Your task to perform on an android device: Go to ESPN.com Image 0: 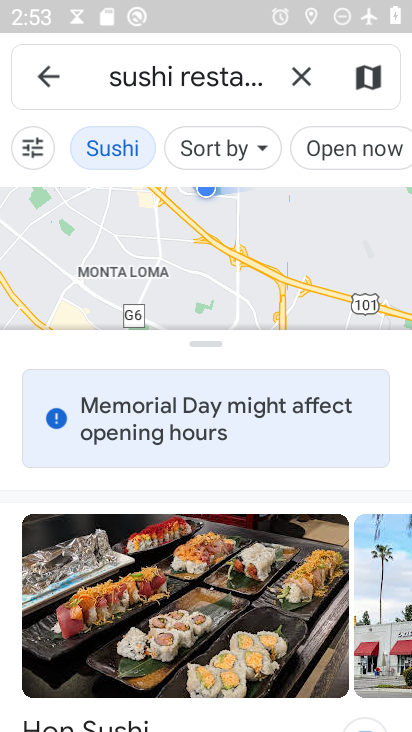
Step 0: press back button
Your task to perform on an android device: Go to ESPN.com Image 1: 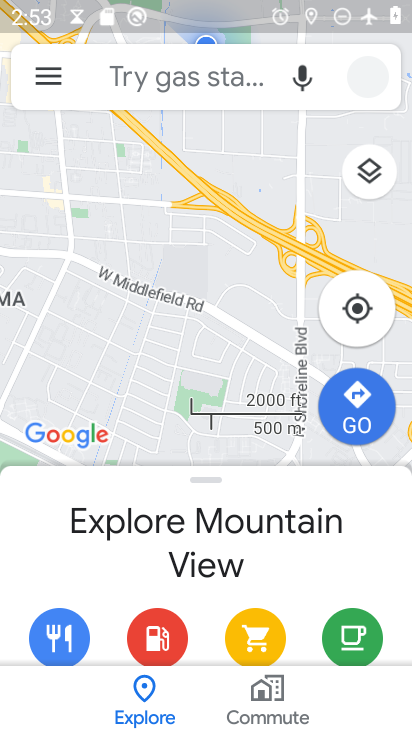
Step 1: click (166, 58)
Your task to perform on an android device: Go to ESPN.com Image 2: 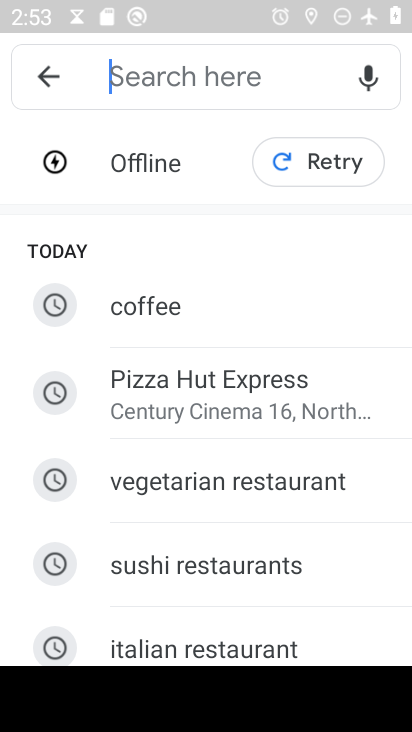
Step 2: press home button
Your task to perform on an android device: Go to ESPN.com Image 3: 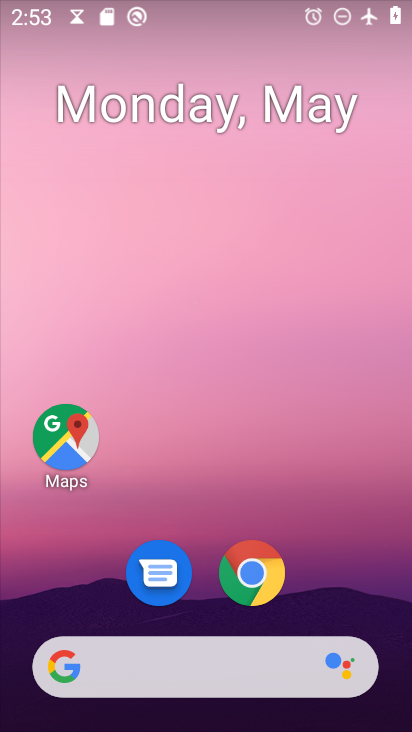
Step 3: drag from (138, 651) to (162, 2)
Your task to perform on an android device: Go to ESPN.com Image 4: 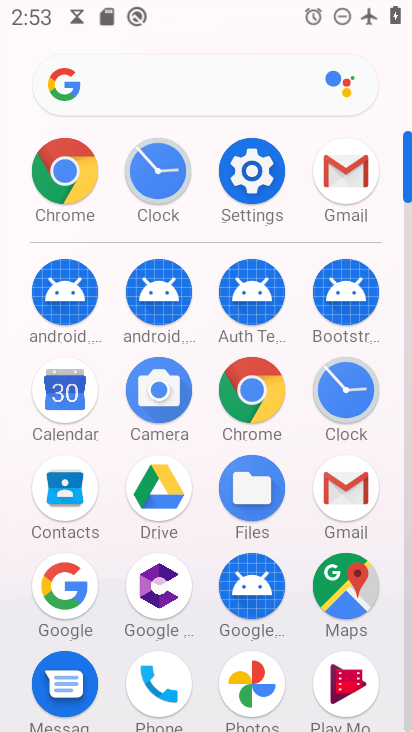
Step 4: click (260, 397)
Your task to perform on an android device: Go to ESPN.com Image 5: 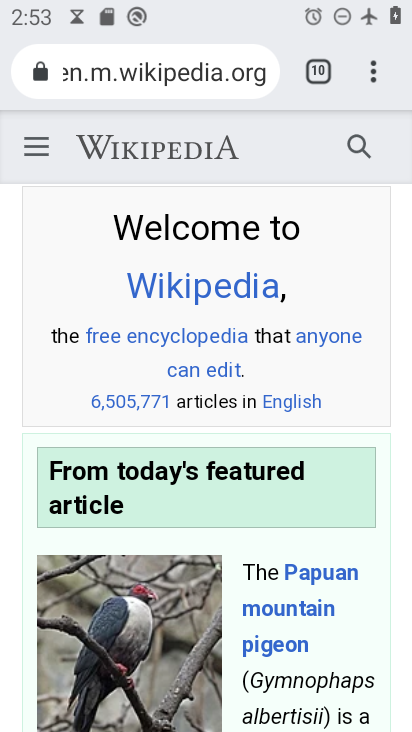
Step 5: type "esp"
Your task to perform on an android device: Go to ESPN.com Image 6: 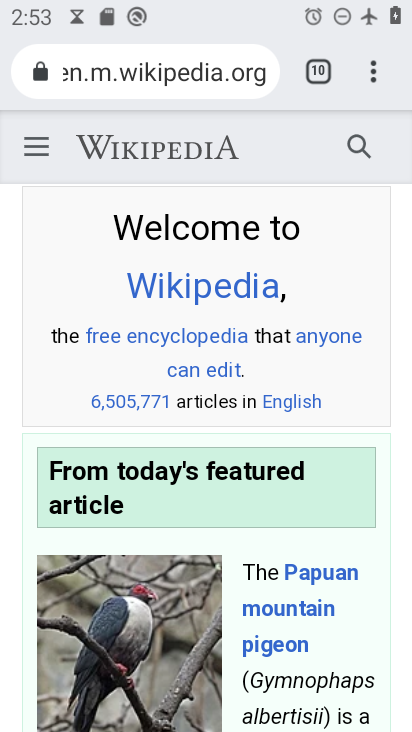
Step 6: click (242, 103)
Your task to perform on an android device: Go to ESPN.com Image 7: 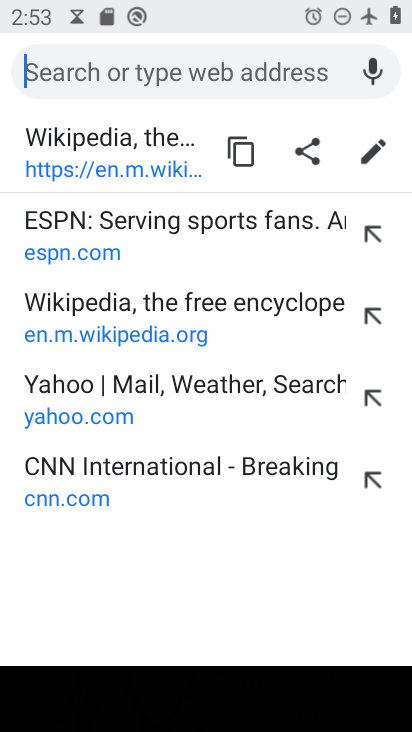
Step 7: click (243, 68)
Your task to perform on an android device: Go to ESPN.com Image 8: 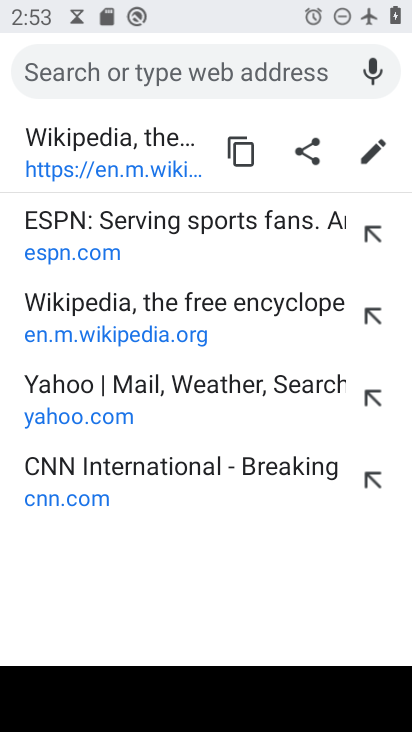
Step 8: click (132, 239)
Your task to perform on an android device: Go to ESPN.com Image 9: 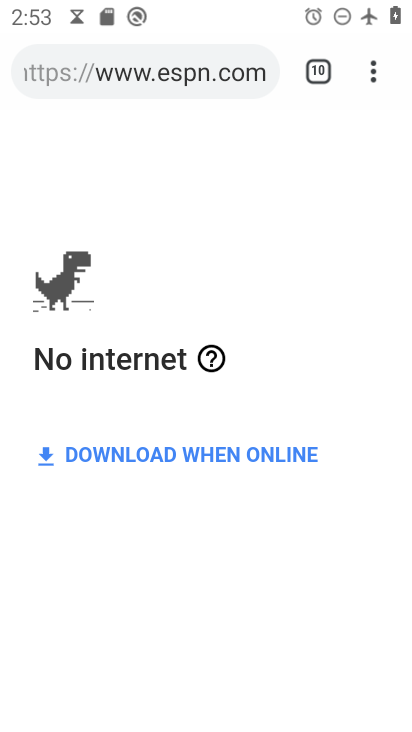
Step 9: task complete